Your task to perform on an android device: move an email to a new category in the gmail app Image 0: 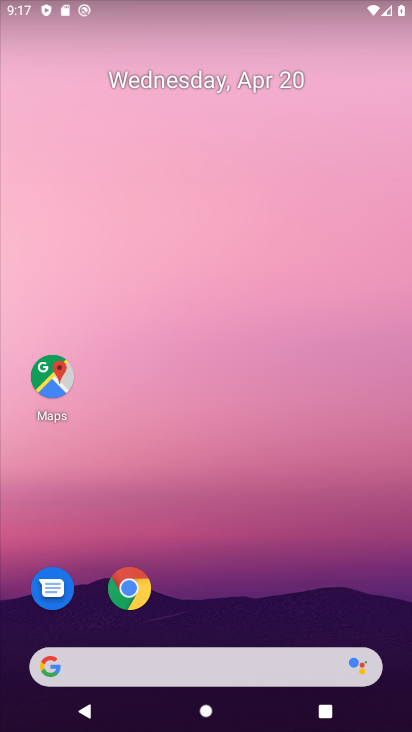
Step 0: drag from (214, 615) to (169, 137)
Your task to perform on an android device: move an email to a new category in the gmail app Image 1: 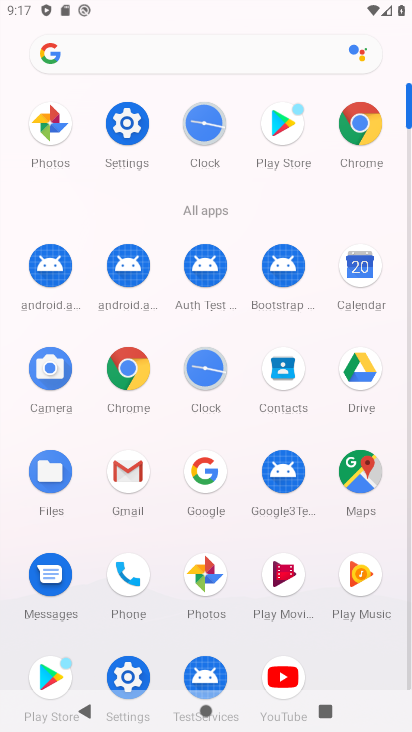
Step 1: click (125, 478)
Your task to perform on an android device: move an email to a new category in the gmail app Image 2: 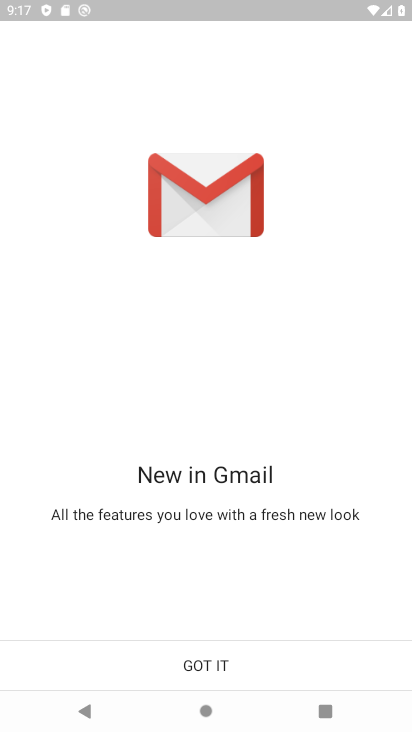
Step 2: click (218, 661)
Your task to perform on an android device: move an email to a new category in the gmail app Image 3: 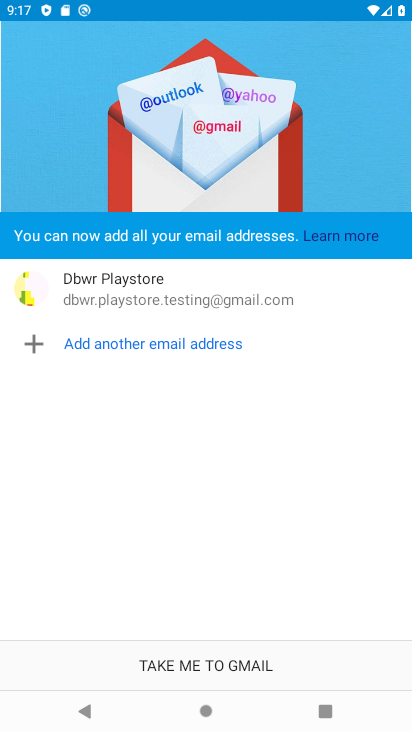
Step 3: click (218, 661)
Your task to perform on an android device: move an email to a new category in the gmail app Image 4: 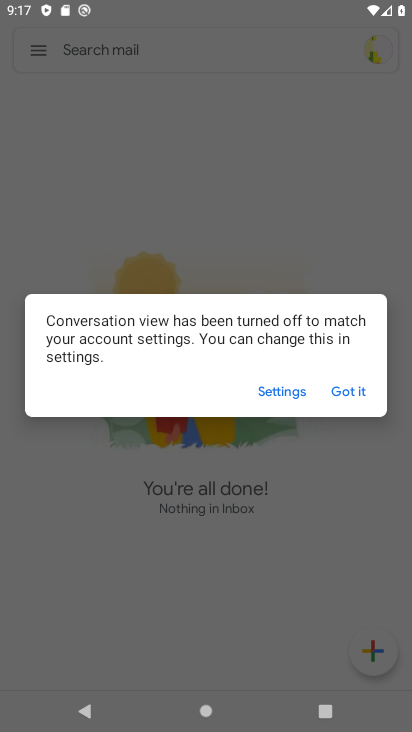
Step 4: click (353, 391)
Your task to perform on an android device: move an email to a new category in the gmail app Image 5: 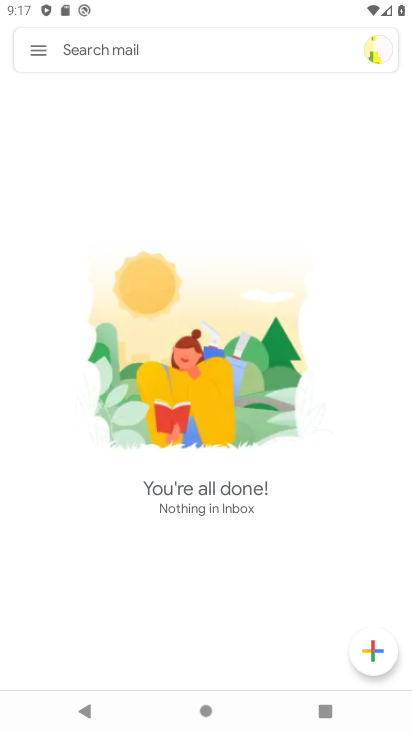
Step 5: click (43, 51)
Your task to perform on an android device: move an email to a new category in the gmail app Image 6: 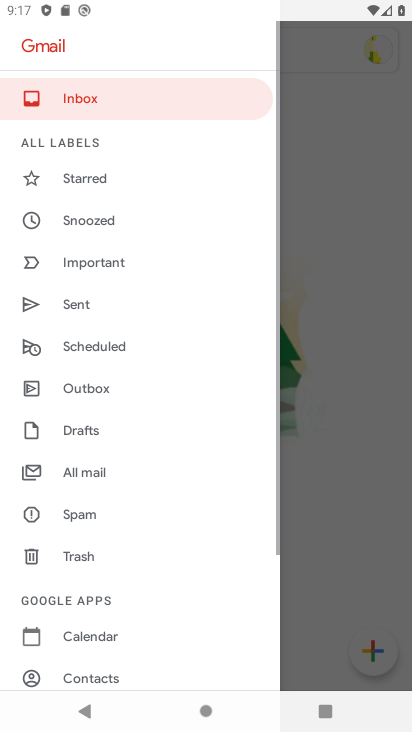
Step 6: drag from (117, 142) to (113, 652)
Your task to perform on an android device: move an email to a new category in the gmail app Image 7: 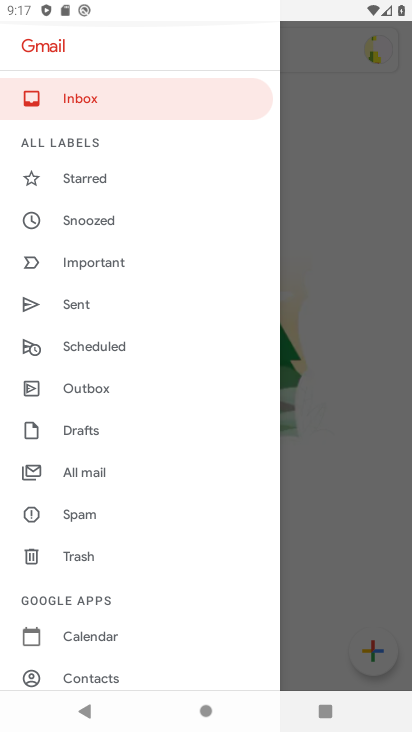
Step 7: click (311, 412)
Your task to perform on an android device: move an email to a new category in the gmail app Image 8: 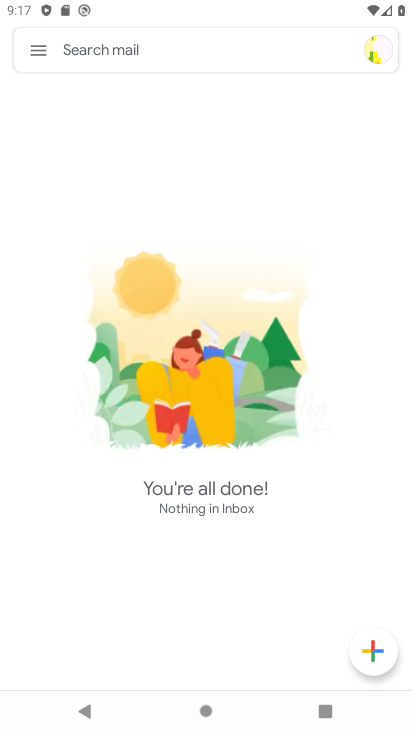
Step 8: task complete